Your task to perform on an android device: Go to ESPN.com Image 0: 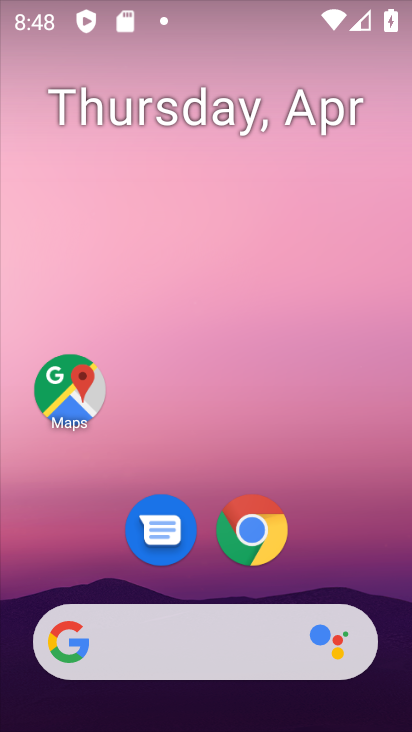
Step 0: drag from (334, 459) to (256, 74)
Your task to perform on an android device: Go to ESPN.com Image 1: 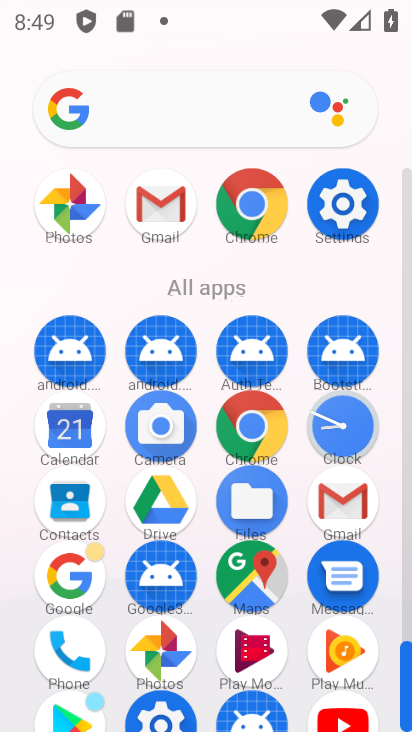
Step 1: click (254, 196)
Your task to perform on an android device: Go to ESPN.com Image 2: 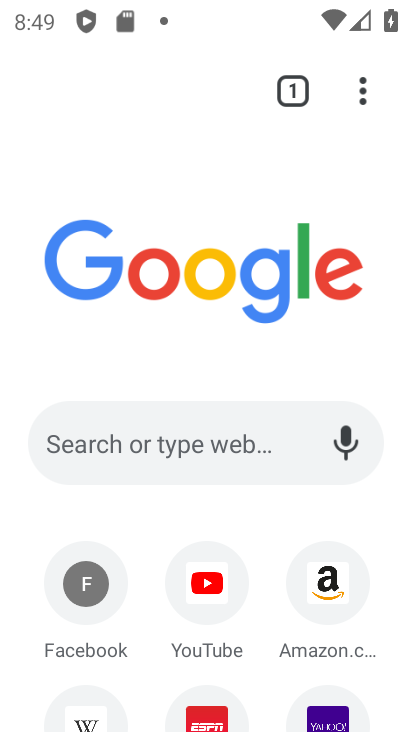
Step 2: click (201, 708)
Your task to perform on an android device: Go to ESPN.com Image 3: 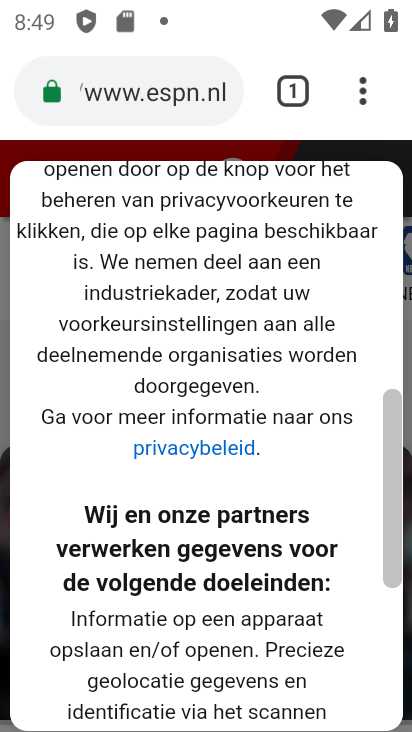
Step 3: task complete